Your task to perform on an android device: Open calendar and show me the first week of next month Image 0: 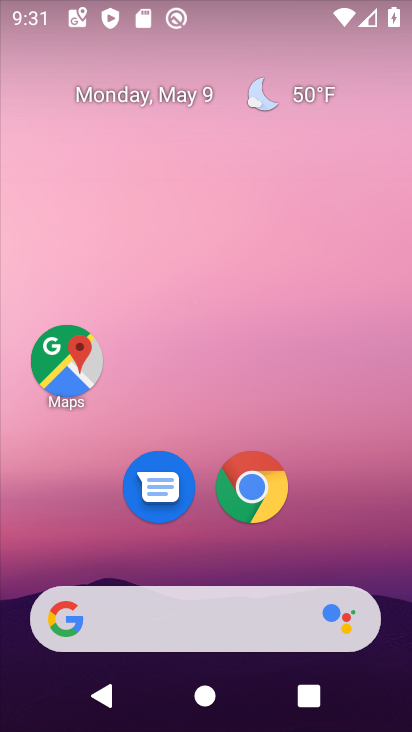
Step 0: press home button
Your task to perform on an android device: Open calendar and show me the first week of next month Image 1: 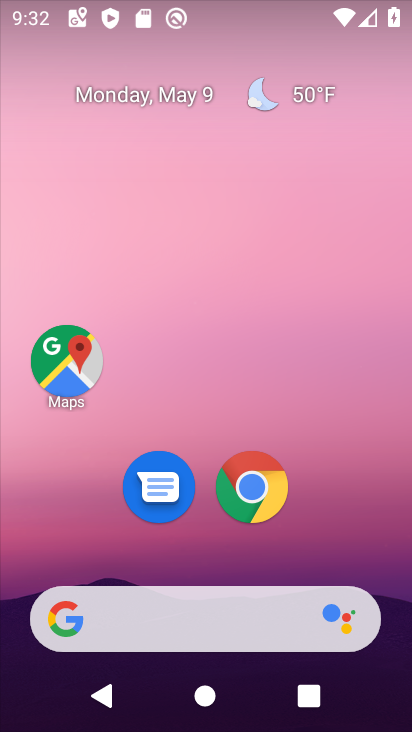
Step 1: drag from (25, 580) to (275, 66)
Your task to perform on an android device: Open calendar and show me the first week of next month Image 2: 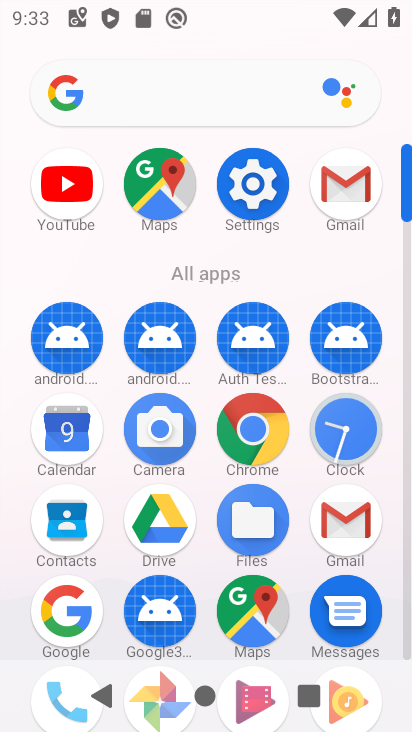
Step 2: click (54, 443)
Your task to perform on an android device: Open calendar and show me the first week of next month Image 3: 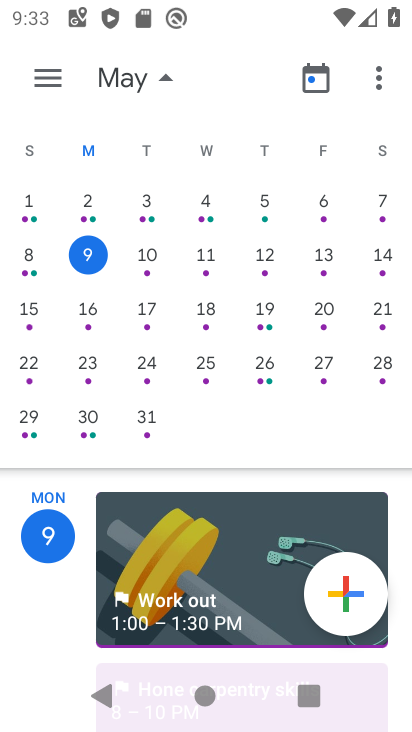
Step 3: drag from (387, 332) to (6, 234)
Your task to perform on an android device: Open calendar and show me the first week of next month Image 4: 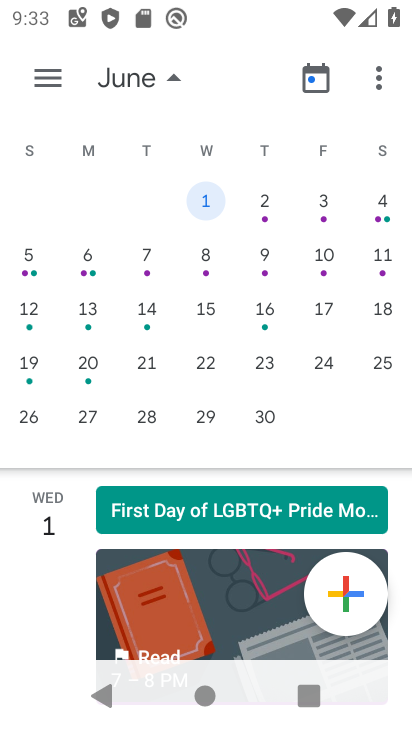
Step 4: click (275, 201)
Your task to perform on an android device: Open calendar and show me the first week of next month Image 5: 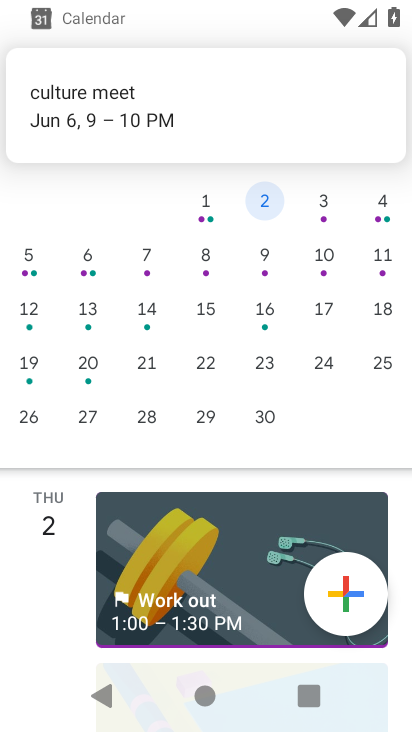
Step 5: click (323, 199)
Your task to perform on an android device: Open calendar and show me the first week of next month Image 6: 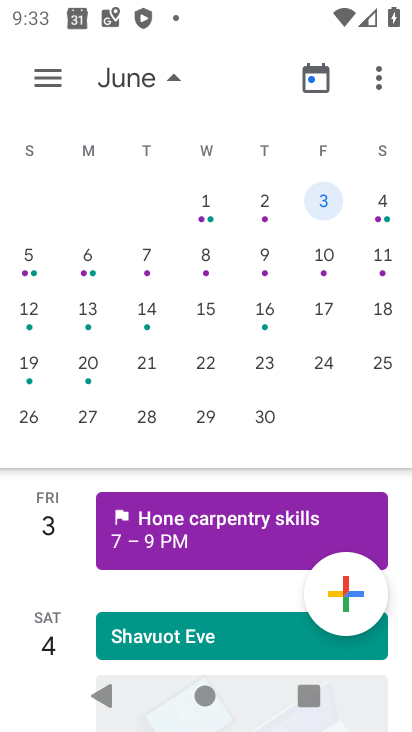
Step 6: click (371, 200)
Your task to perform on an android device: Open calendar and show me the first week of next month Image 7: 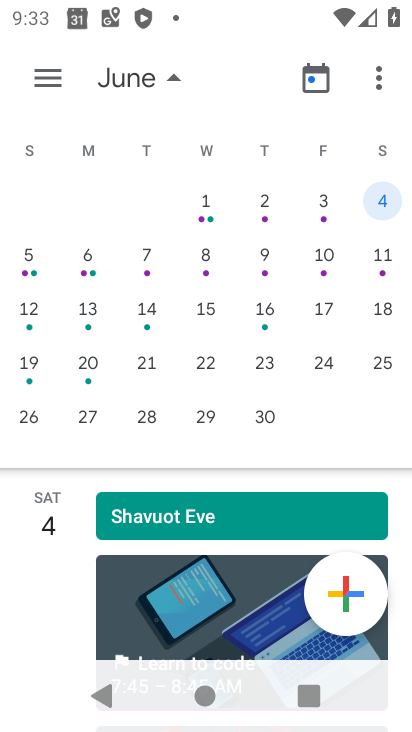
Step 7: click (36, 254)
Your task to perform on an android device: Open calendar and show me the first week of next month Image 8: 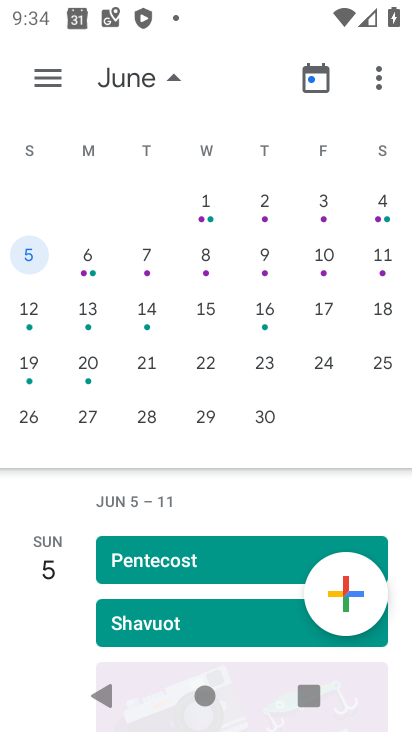
Step 8: click (96, 254)
Your task to perform on an android device: Open calendar and show me the first week of next month Image 9: 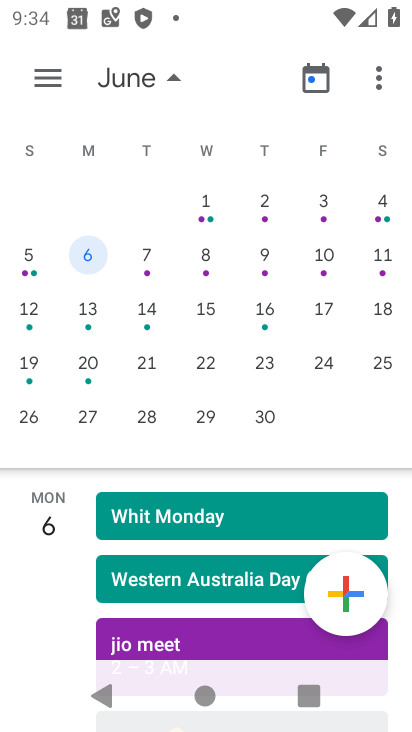
Step 9: click (154, 260)
Your task to perform on an android device: Open calendar and show me the first week of next month Image 10: 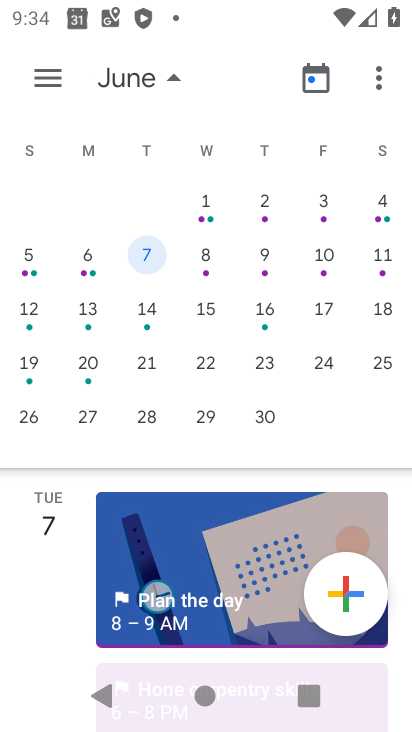
Step 10: task complete